Your task to perform on an android device: Do I have any events this weekend? Image 0: 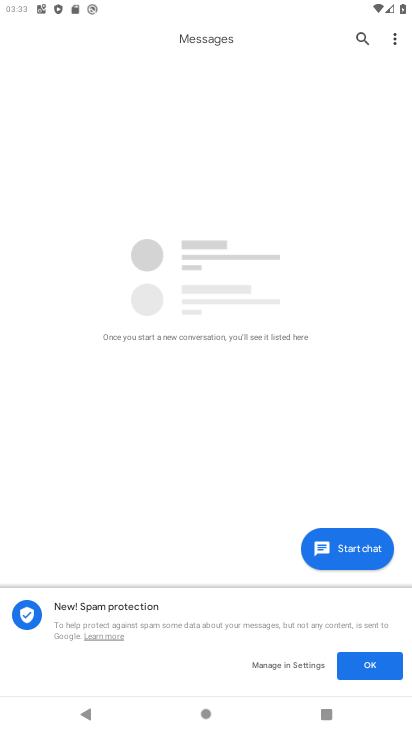
Step 0: press home button
Your task to perform on an android device: Do I have any events this weekend? Image 1: 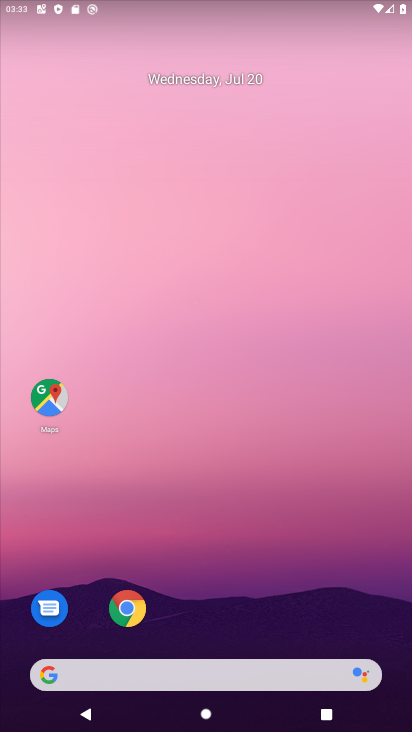
Step 1: drag from (384, 624) to (354, 73)
Your task to perform on an android device: Do I have any events this weekend? Image 2: 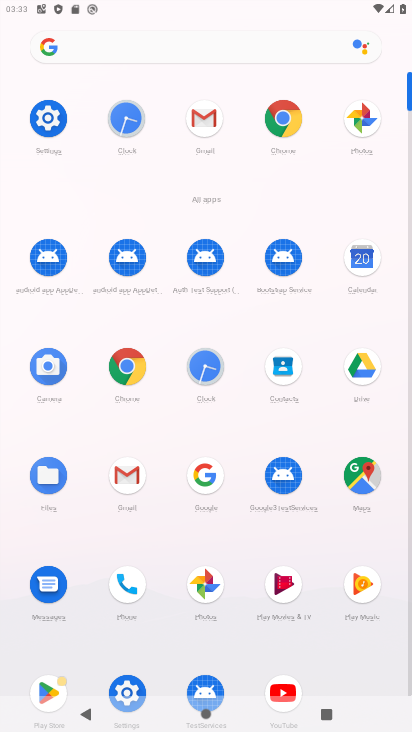
Step 2: click (370, 266)
Your task to perform on an android device: Do I have any events this weekend? Image 3: 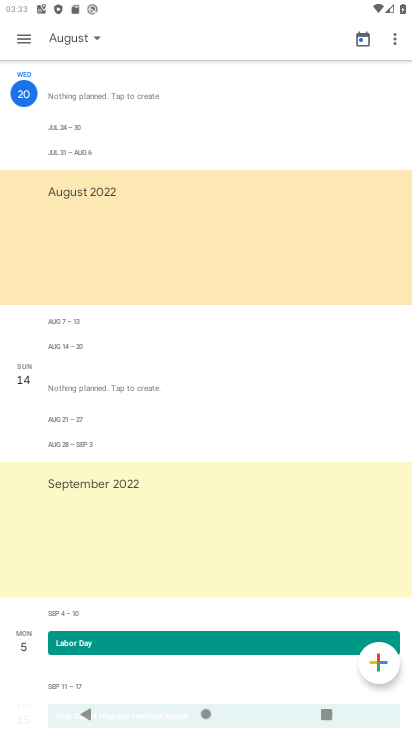
Step 3: click (21, 34)
Your task to perform on an android device: Do I have any events this weekend? Image 4: 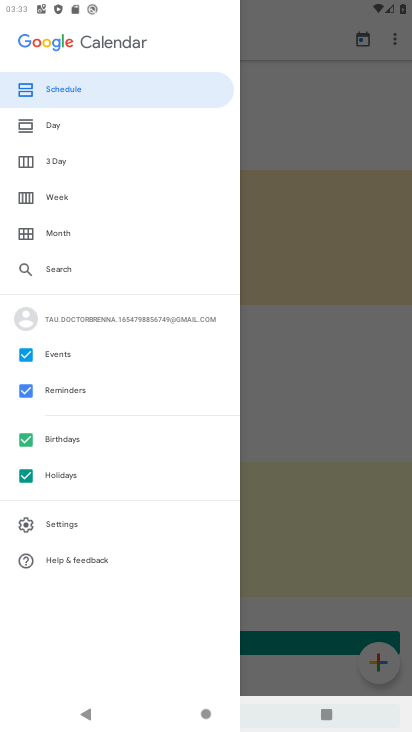
Step 4: click (55, 194)
Your task to perform on an android device: Do I have any events this weekend? Image 5: 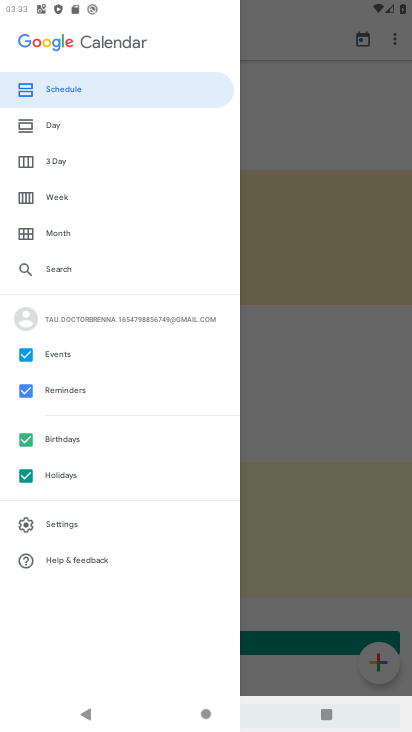
Step 5: click (55, 194)
Your task to perform on an android device: Do I have any events this weekend? Image 6: 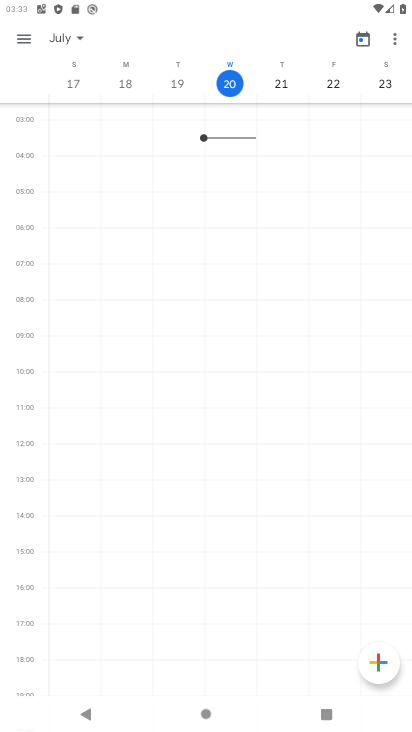
Step 6: click (13, 34)
Your task to perform on an android device: Do I have any events this weekend? Image 7: 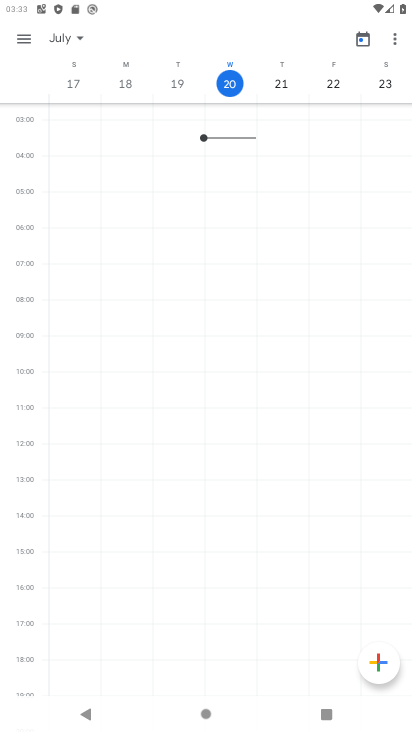
Step 7: click (26, 34)
Your task to perform on an android device: Do I have any events this weekend? Image 8: 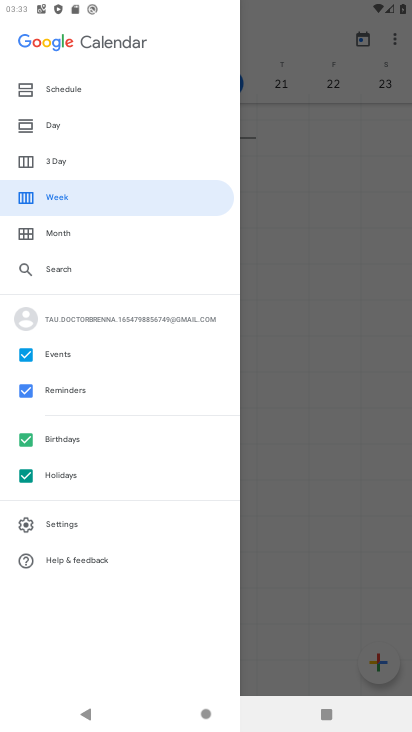
Step 8: click (56, 85)
Your task to perform on an android device: Do I have any events this weekend? Image 9: 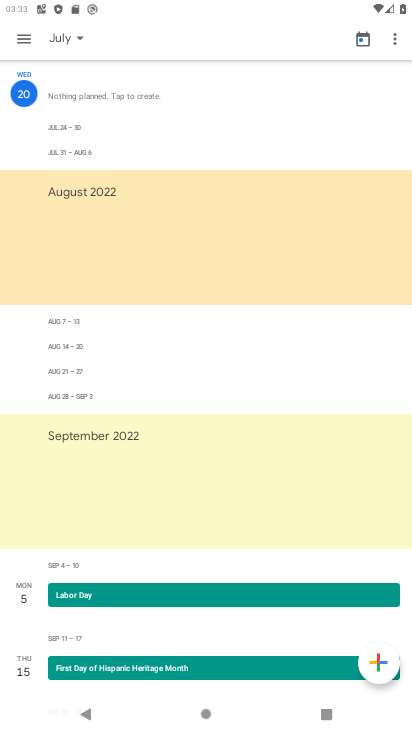
Step 9: task complete